Your task to perform on an android device: Show me the alarms in the clock app Image 0: 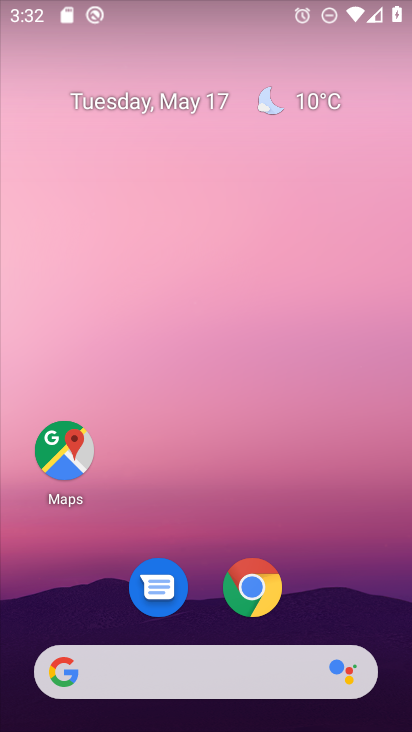
Step 0: drag from (320, 561) to (242, 40)
Your task to perform on an android device: Show me the alarms in the clock app Image 1: 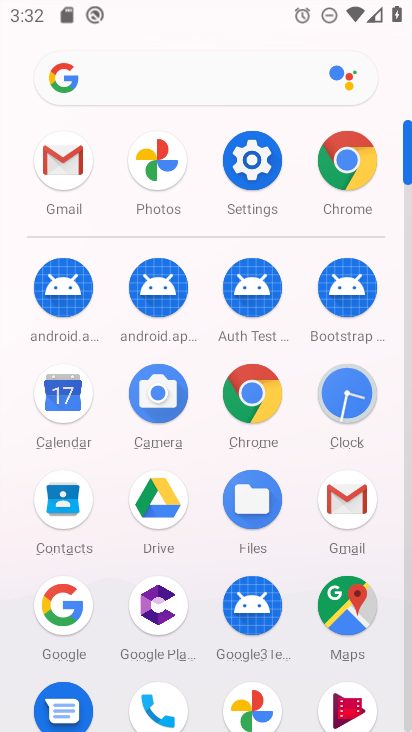
Step 1: drag from (24, 570) to (20, 176)
Your task to perform on an android device: Show me the alarms in the clock app Image 2: 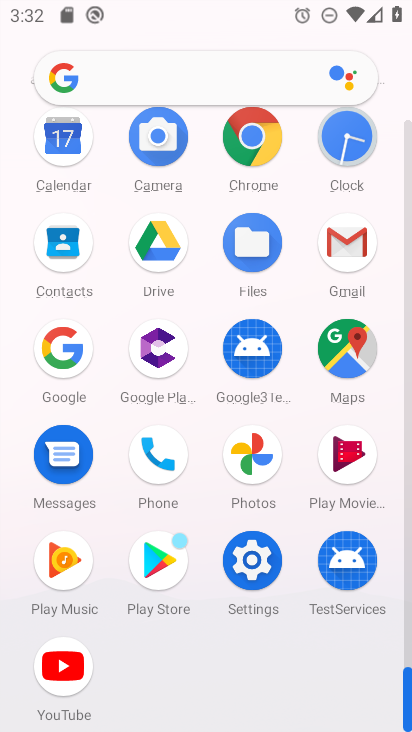
Step 2: drag from (4, 494) to (17, 216)
Your task to perform on an android device: Show me the alarms in the clock app Image 3: 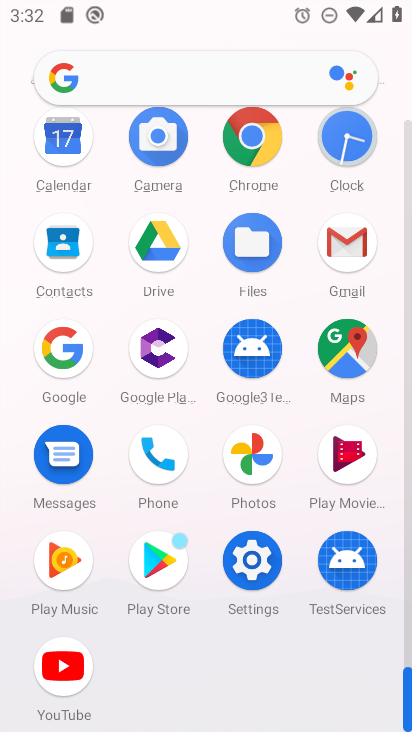
Step 3: click (341, 132)
Your task to perform on an android device: Show me the alarms in the clock app Image 4: 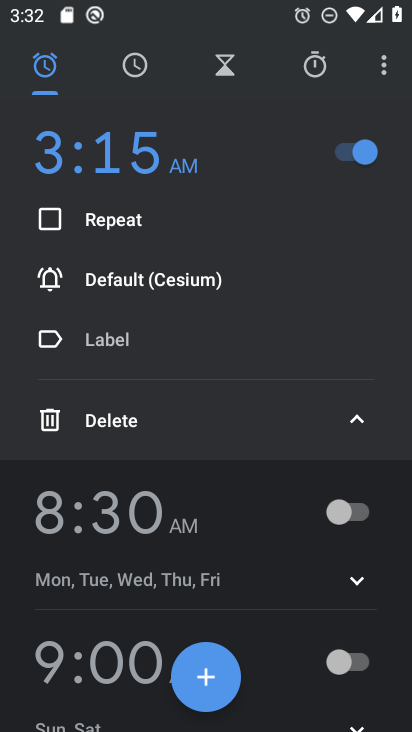
Step 4: click (125, 63)
Your task to perform on an android device: Show me the alarms in the clock app Image 5: 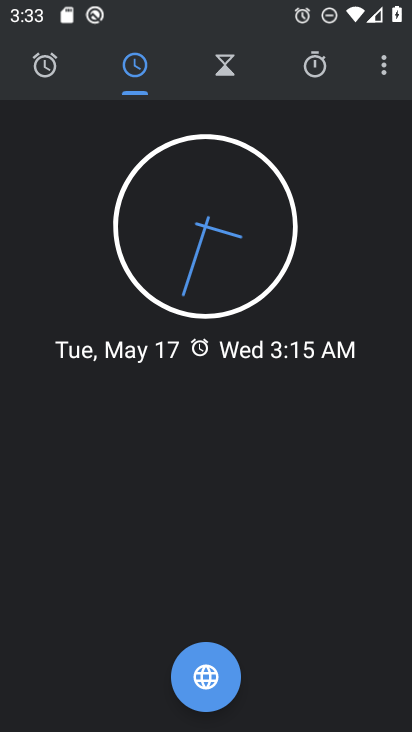
Step 5: click (48, 50)
Your task to perform on an android device: Show me the alarms in the clock app Image 6: 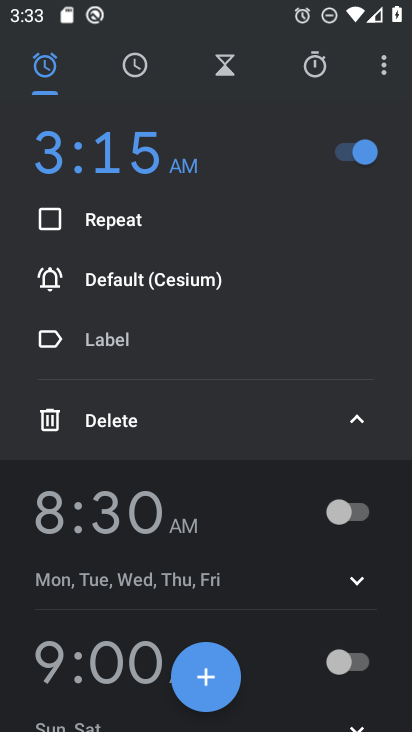
Step 6: task complete